Your task to perform on an android device: snooze an email in the gmail app Image 0: 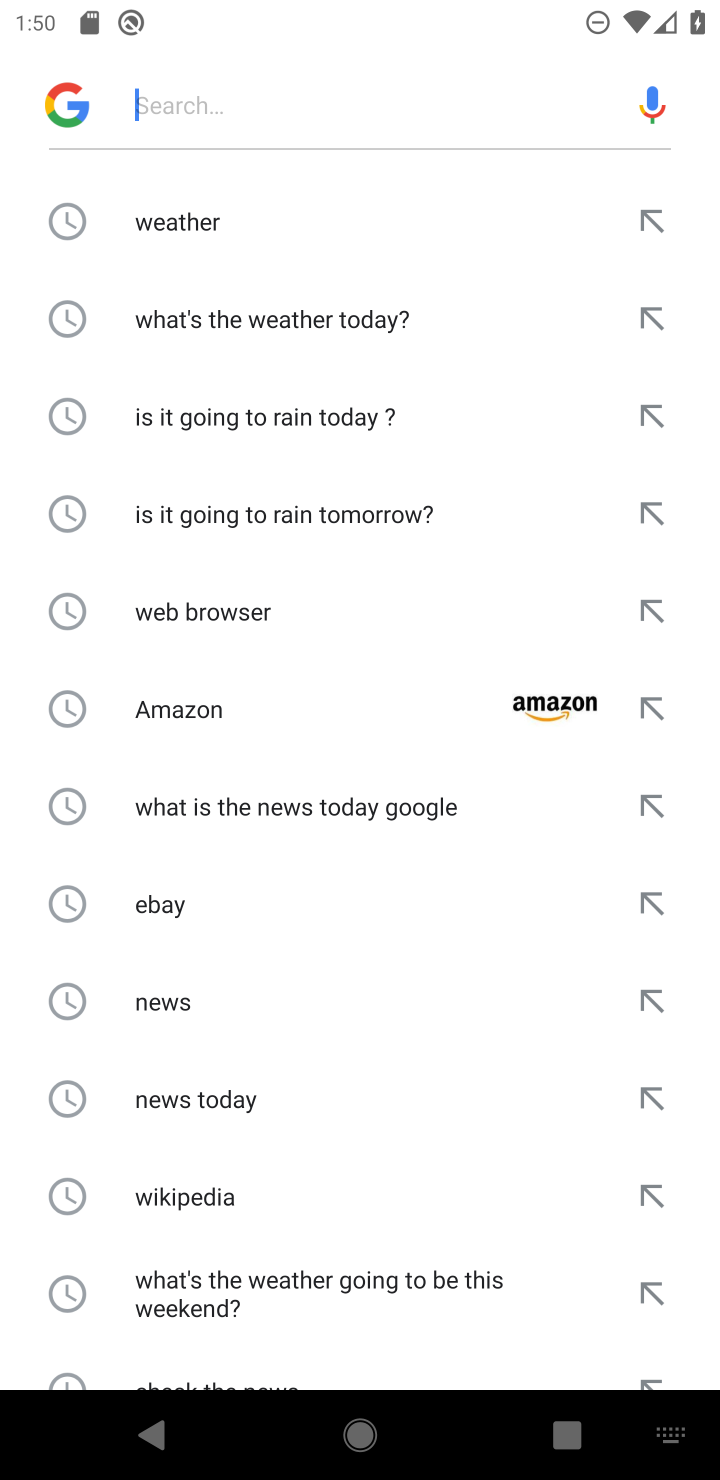
Step 0: press home button
Your task to perform on an android device: snooze an email in the gmail app Image 1: 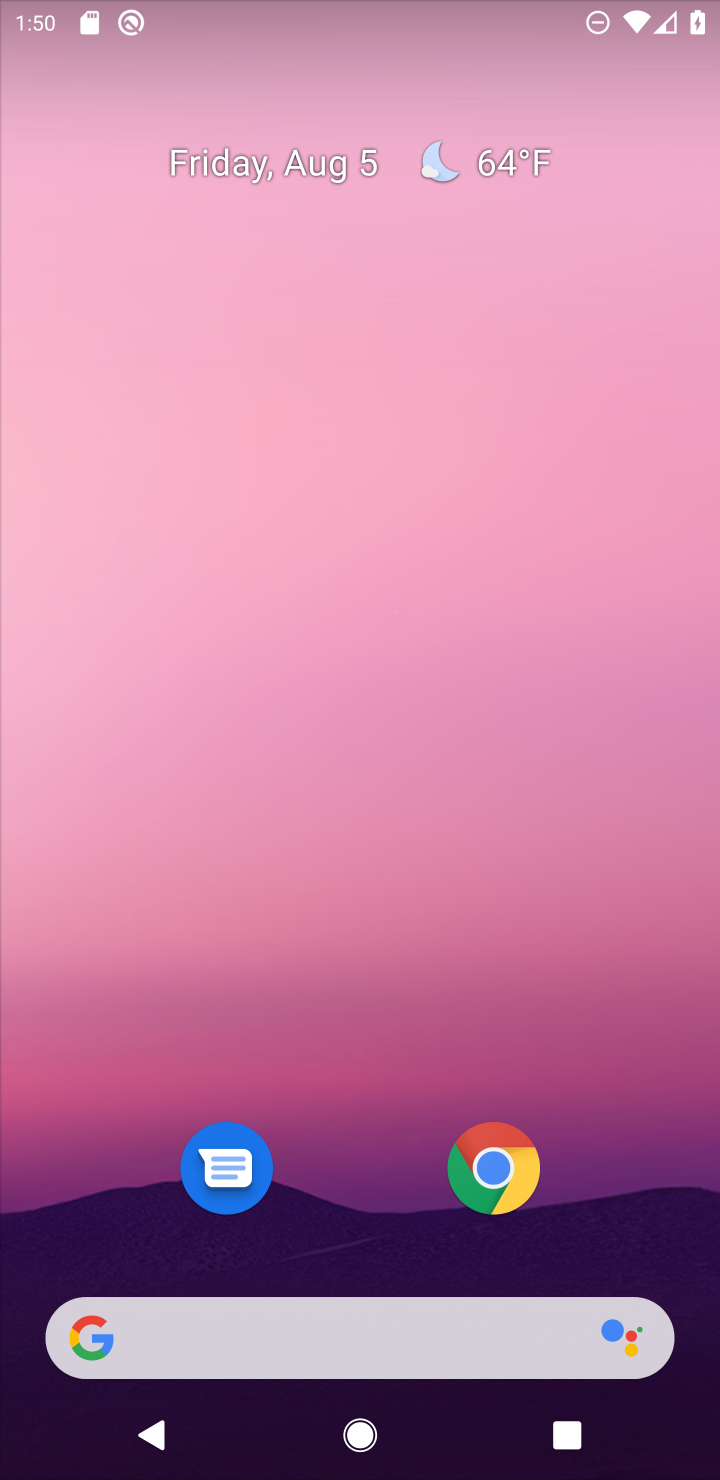
Step 1: drag from (683, 1240) to (368, 97)
Your task to perform on an android device: snooze an email in the gmail app Image 2: 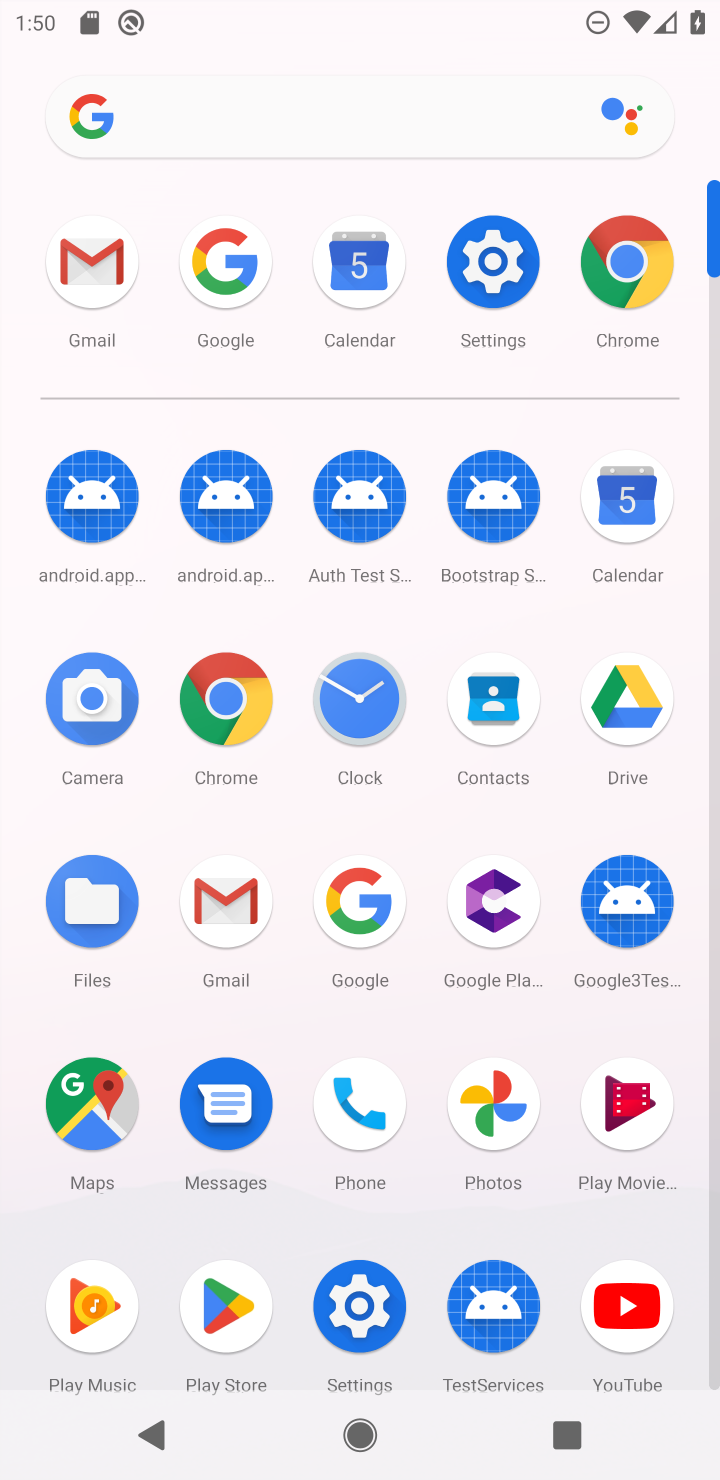
Step 2: click (199, 896)
Your task to perform on an android device: snooze an email in the gmail app Image 3: 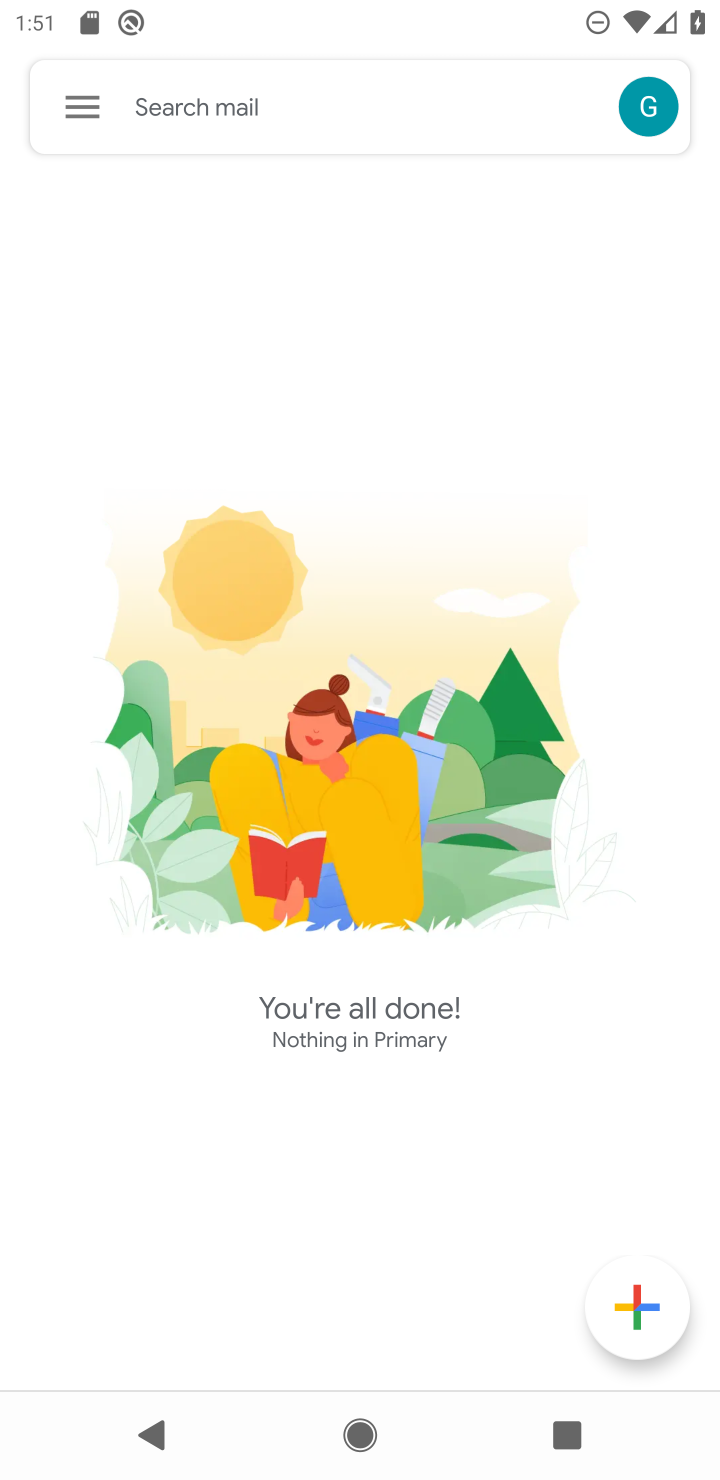
Step 3: task complete